Your task to perform on an android device: set default search engine in the chrome app Image 0: 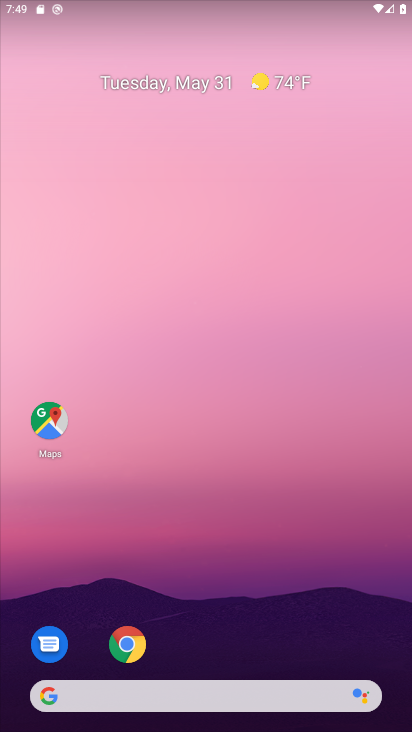
Step 0: click (133, 641)
Your task to perform on an android device: set default search engine in the chrome app Image 1: 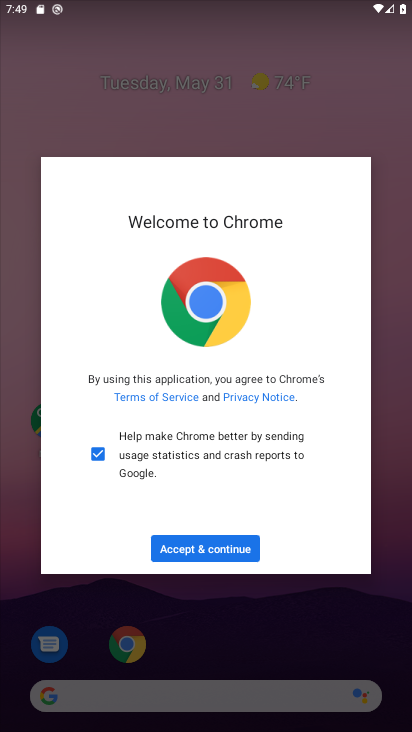
Step 1: click (211, 553)
Your task to perform on an android device: set default search engine in the chrome app Image 2: 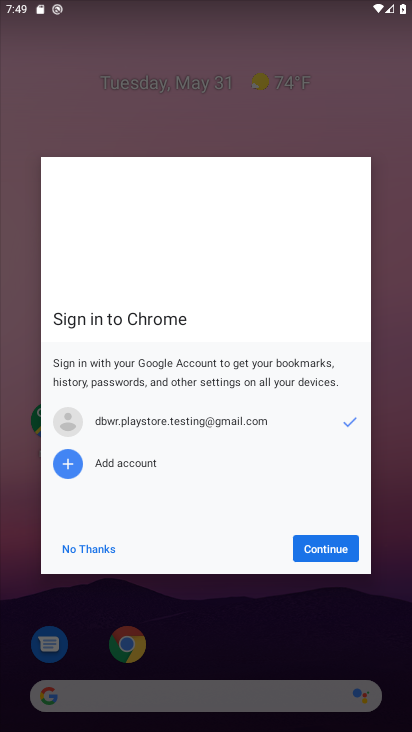
Step 2: click (343, 557)
Your task to perform on an android device: set default search engine in the chrome app Image 3: 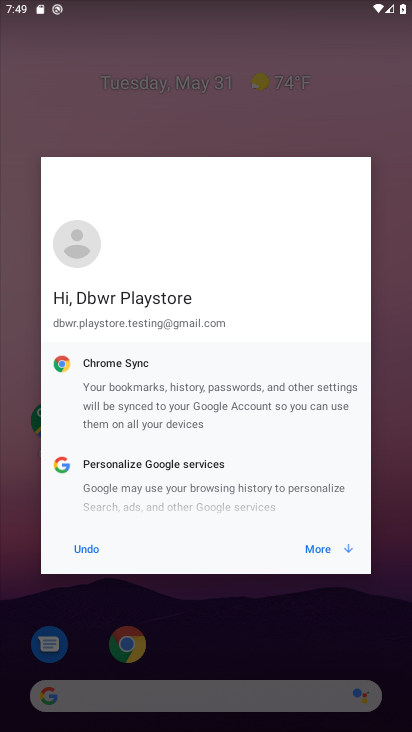
Step 3: click (337, 556)
Your task to perform on an android device: set default search engine in the chrome app Image 4: 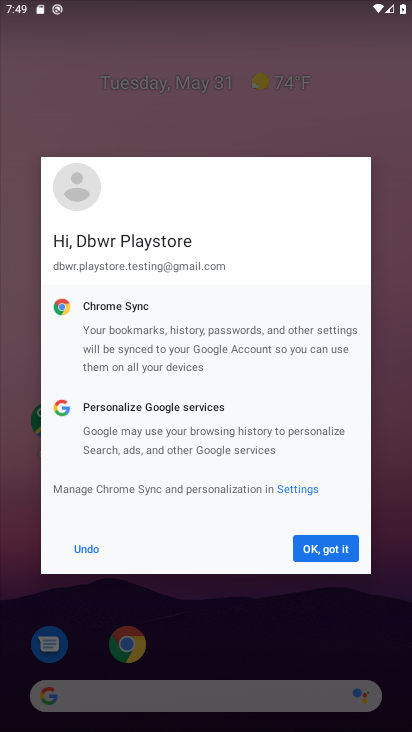
Step 4: click (337, 556)
Your task to perform on an android device: set default search engine in the chrome app Image 5: 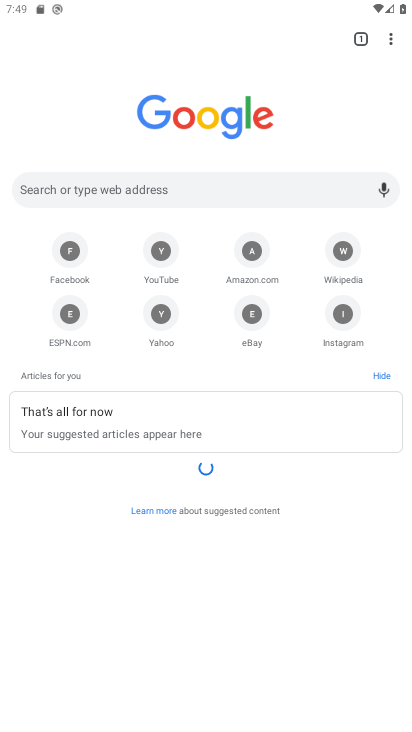
Step 5: click (397, 37)
Your task to perform on an android device: set default search engine in the chrome app Image 6: 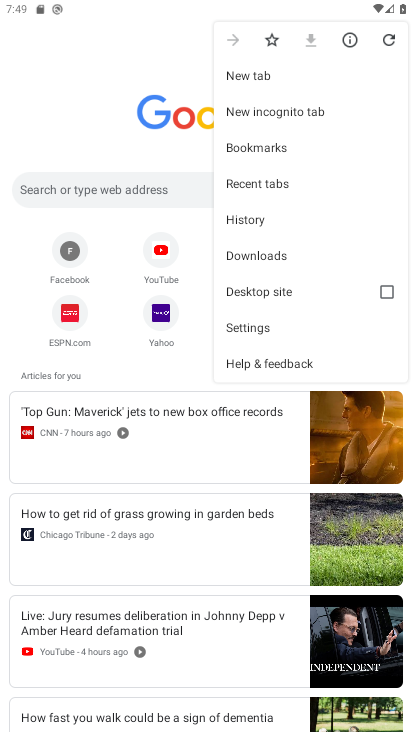
Step 6: click (273, 330)
Your task to perform on an android device: set default search engine in the chrome app Image 7: 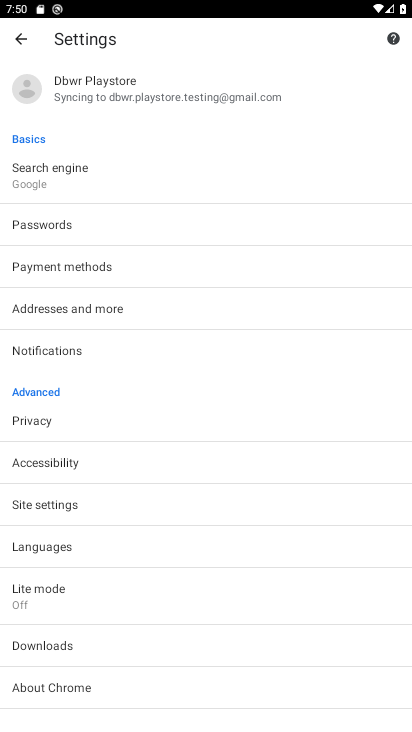
Step 7: click (102, 177)
Your task to perform on an android device: set default search engine in the chrome app Image 8: 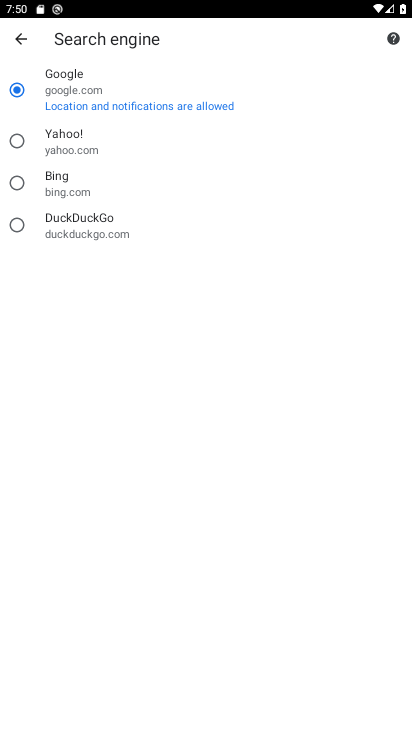
Step 8: click (16, 139)
Your task to perform on an android device: set default search engine in the chrome app Image 9: 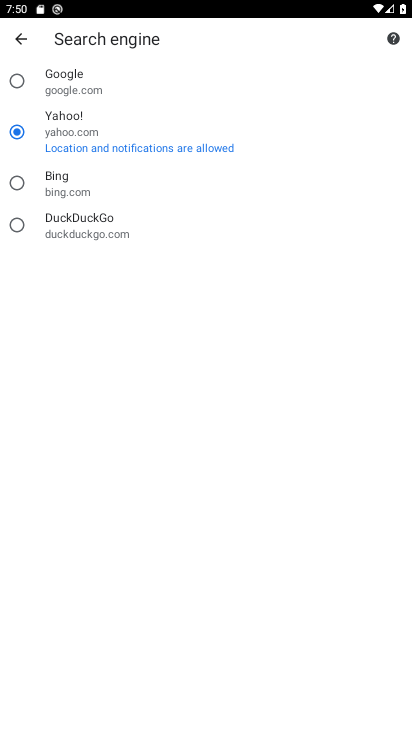
Step 9: task complete